Your task to perform on an android device: Open calendar and show me the third week of next month Image 0: 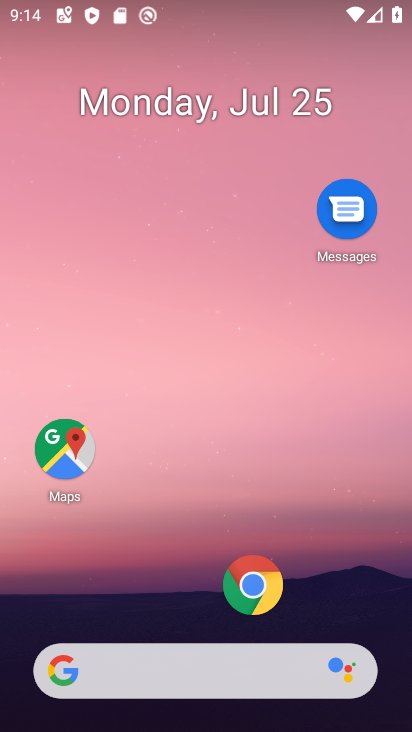
Step 0: drag from (208, 676) to (384, 72)
Your task to perform on an android device: Open calendar and show me the third week of next month Image 1: 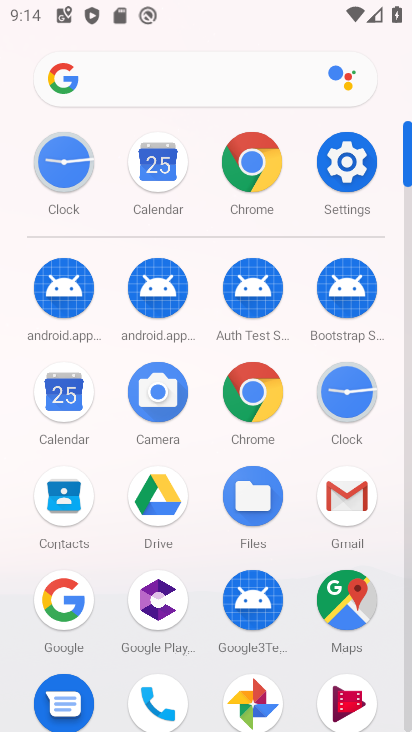
Step 1: click (164, 174)
Your task to perform on an android device: Open calendar and show me the third week of next month Image 2: 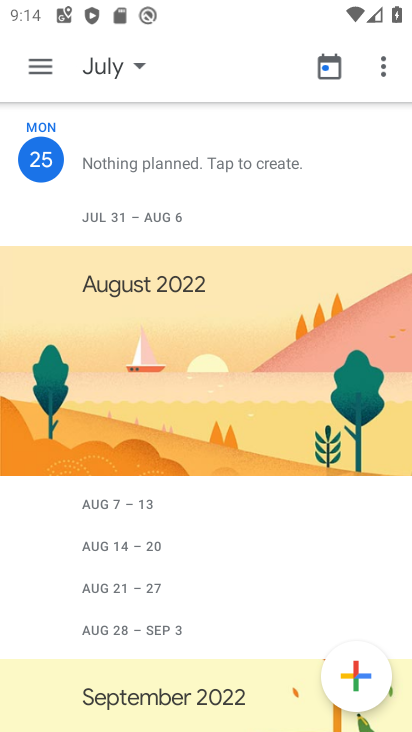
Step 2: click (108, 65)
Your task to perform on an android device: Open calendar and show me the third week of next month Image 3: 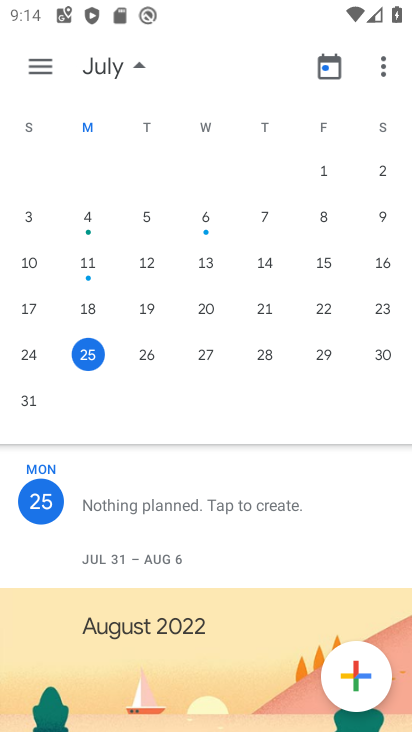
Step 3: drag from (347, 239) to (0, 291)
Your task to perform on an android device: Open calendar and show me the third week of next month Image 4: 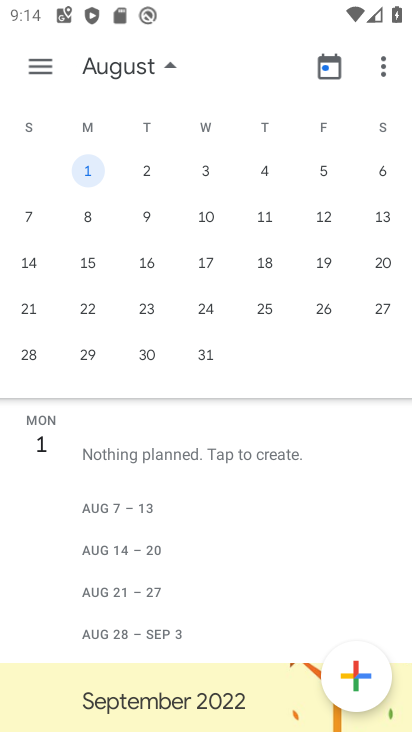
Step 4: click (31, 256)
Your task to perform on an android device: Open calendar and show me the third week of next month Image 5: 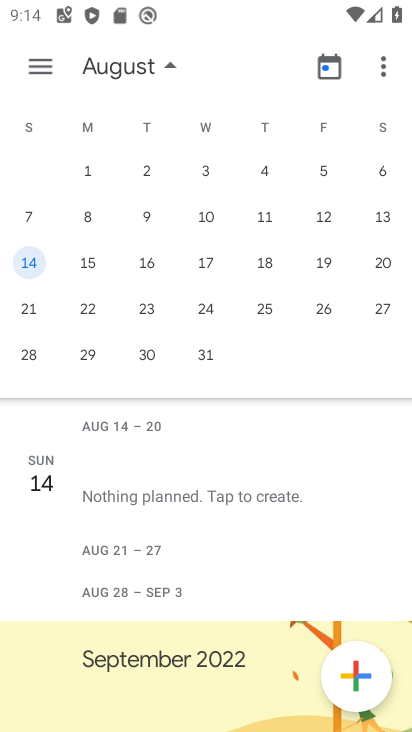
Step 5: click (41, 62)
Your task to perform on an android device: Open calendar and show me the third week of next month Image 6: 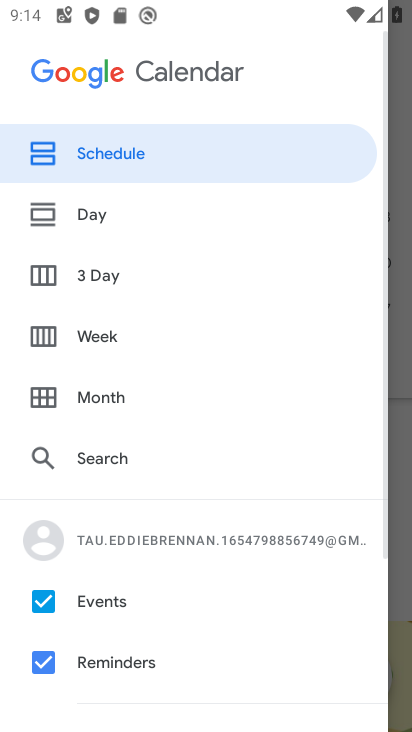
Step 6: click (102, 335)
Your task to perform on an android device: Open calendar and show me the third week of next month Image 7: 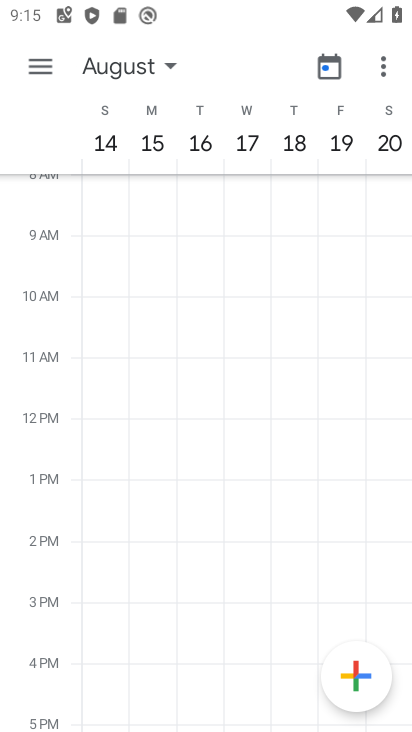
Step 7: task complete